Your task to perform on an android device: turn vacation reply on in the gmail app Image 0: 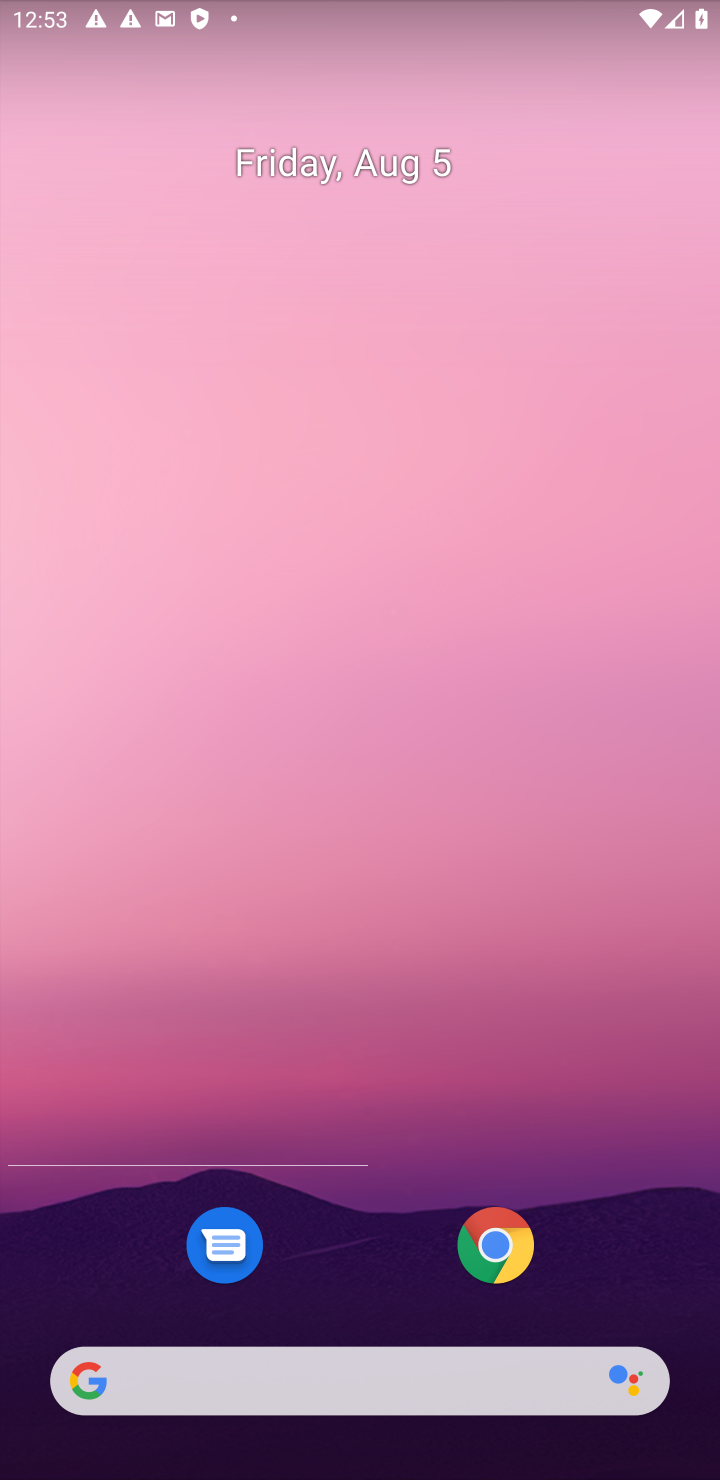
Step 0: press home button
Your task to perform on an android device: turn vacation reply on in the gmail app Image 1: 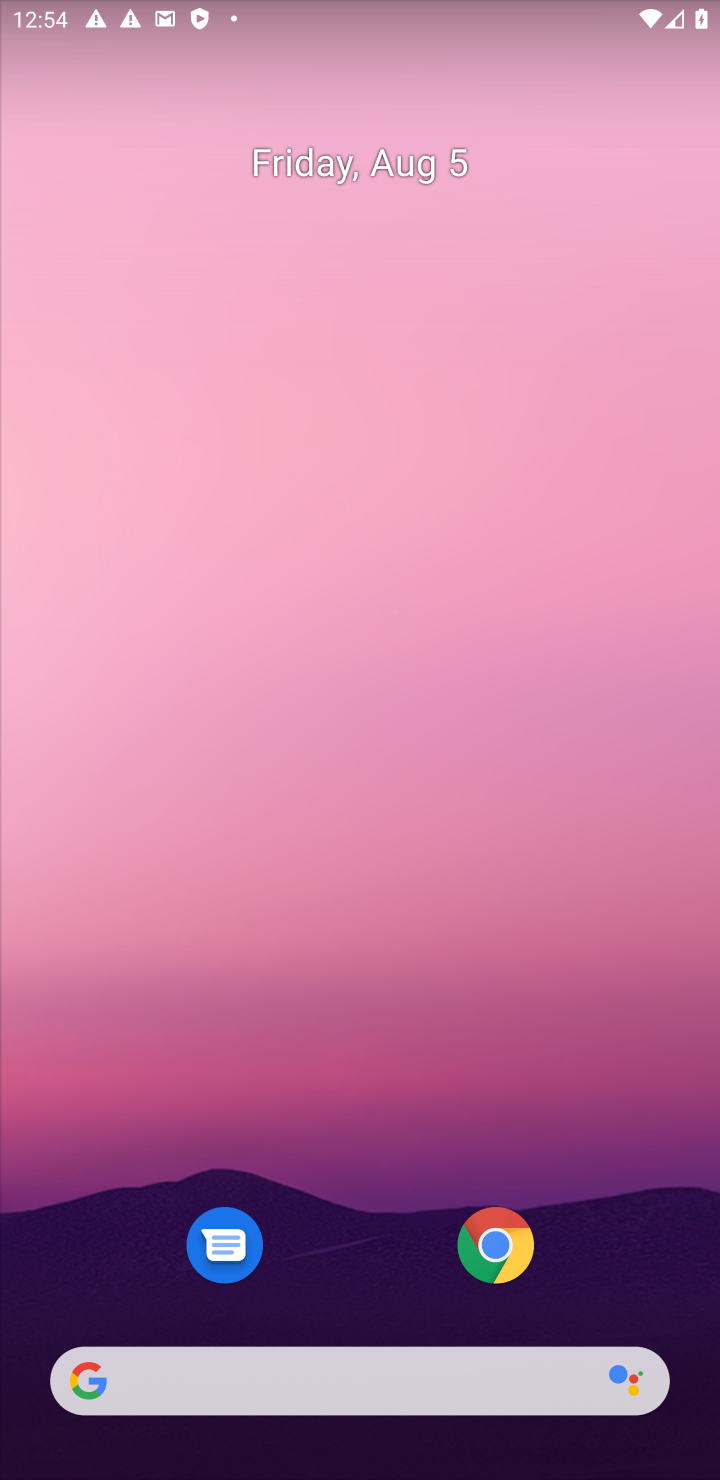
Step 1: drag from (374, 1063) to (453, 155)
Your task to perform on an android device: turn vacation reply on in the gmail app Image 2: 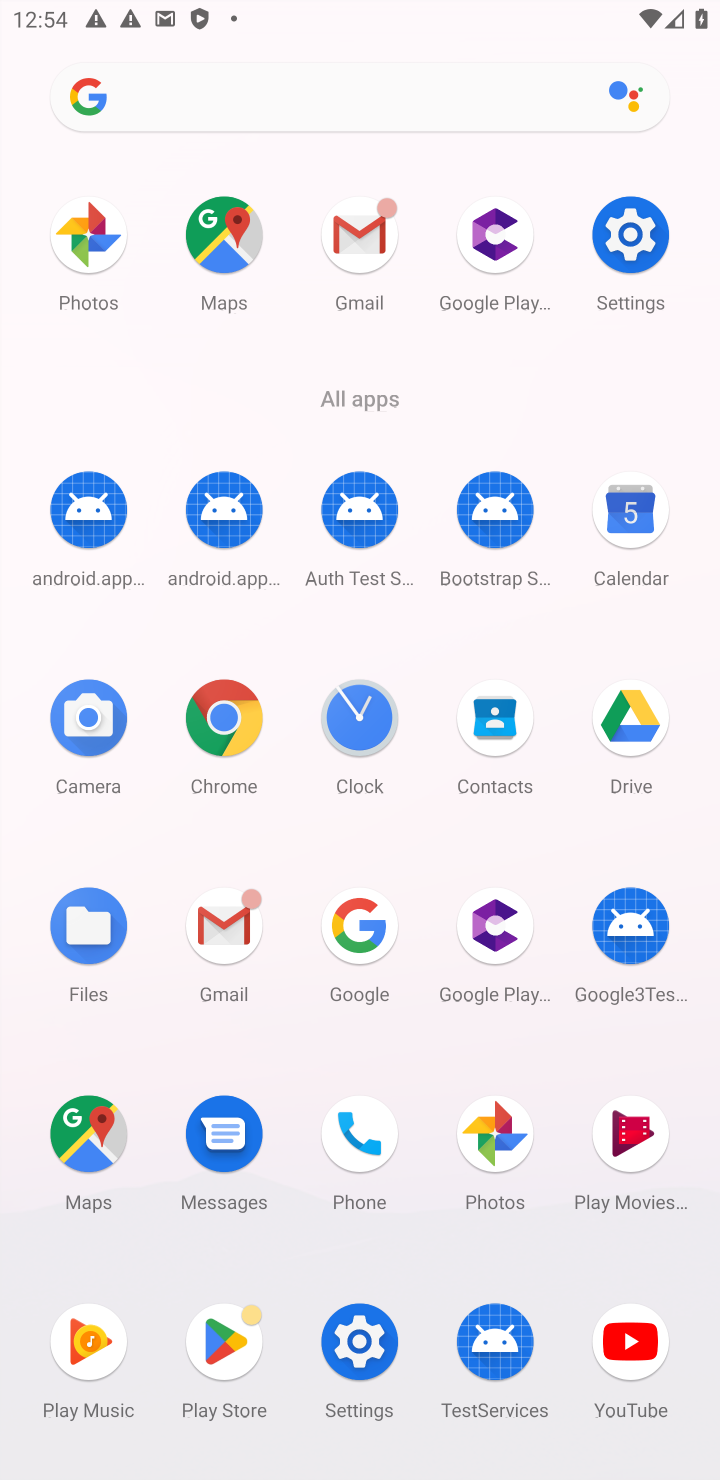
Step 2: click (361, 238)
Your task to perform on an android device: turn vacation reply on in the gmail app Image 3: 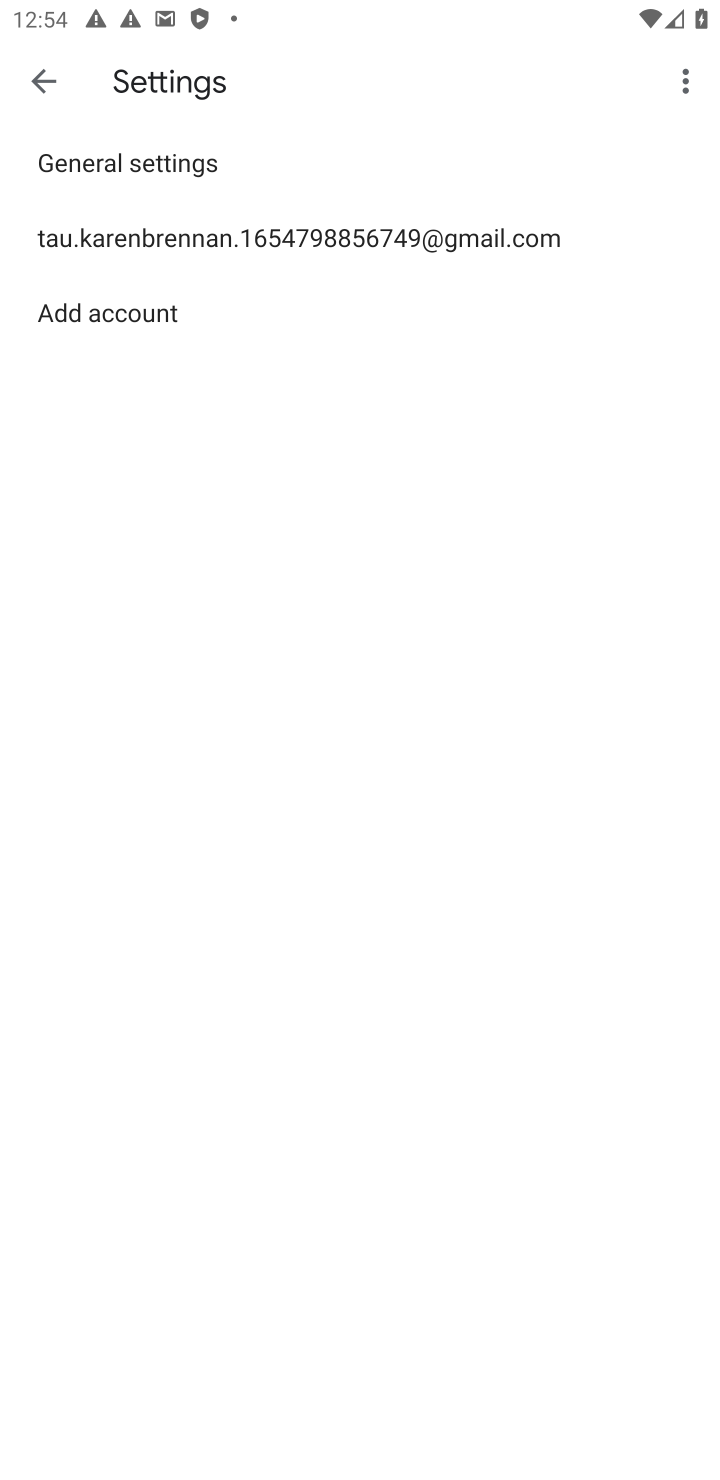
Step 3: click (274, 233)
Your task to perform on an android device: turn vacation reply on in the gmail app Image 4: 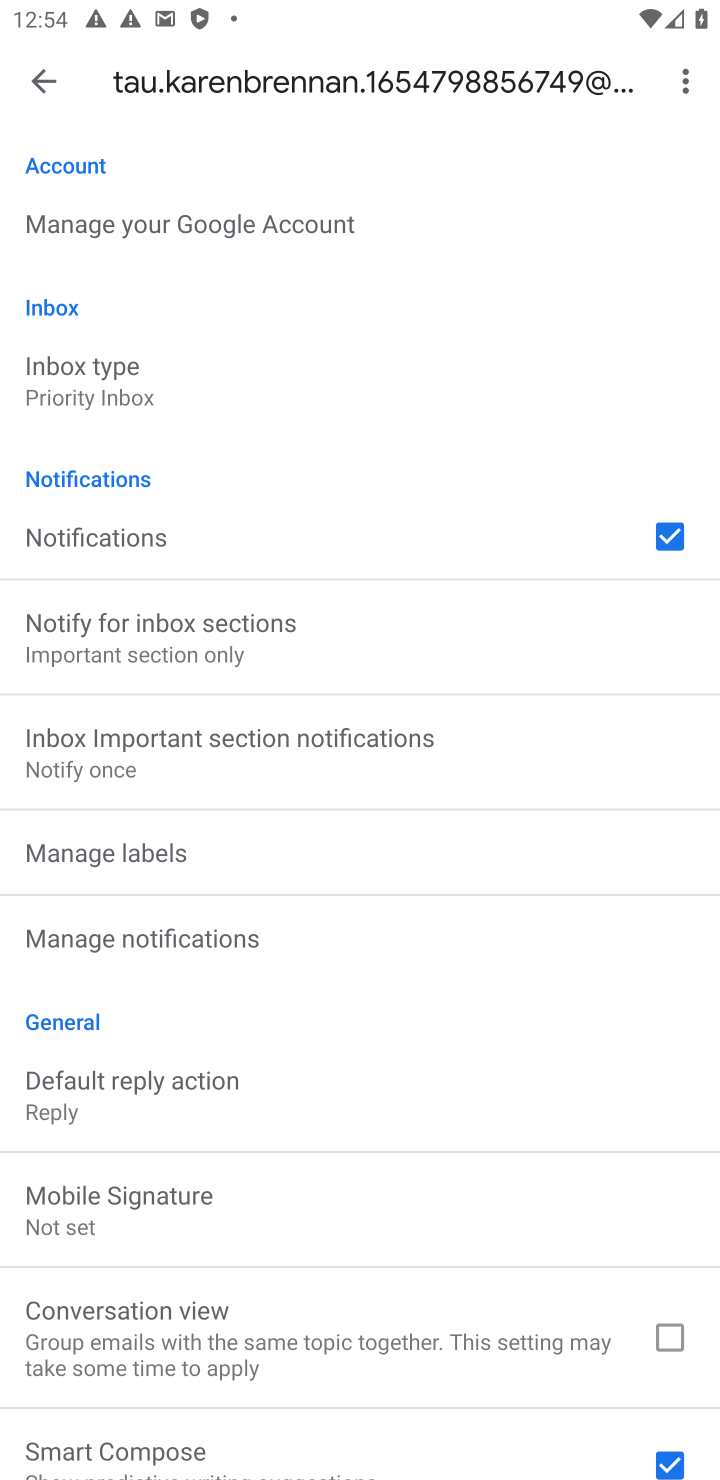
Step 4: drag from (424, 1305) to (432, 515)
Your task to perform on an android device: turn vacation reply on in the gmail app Image 5: 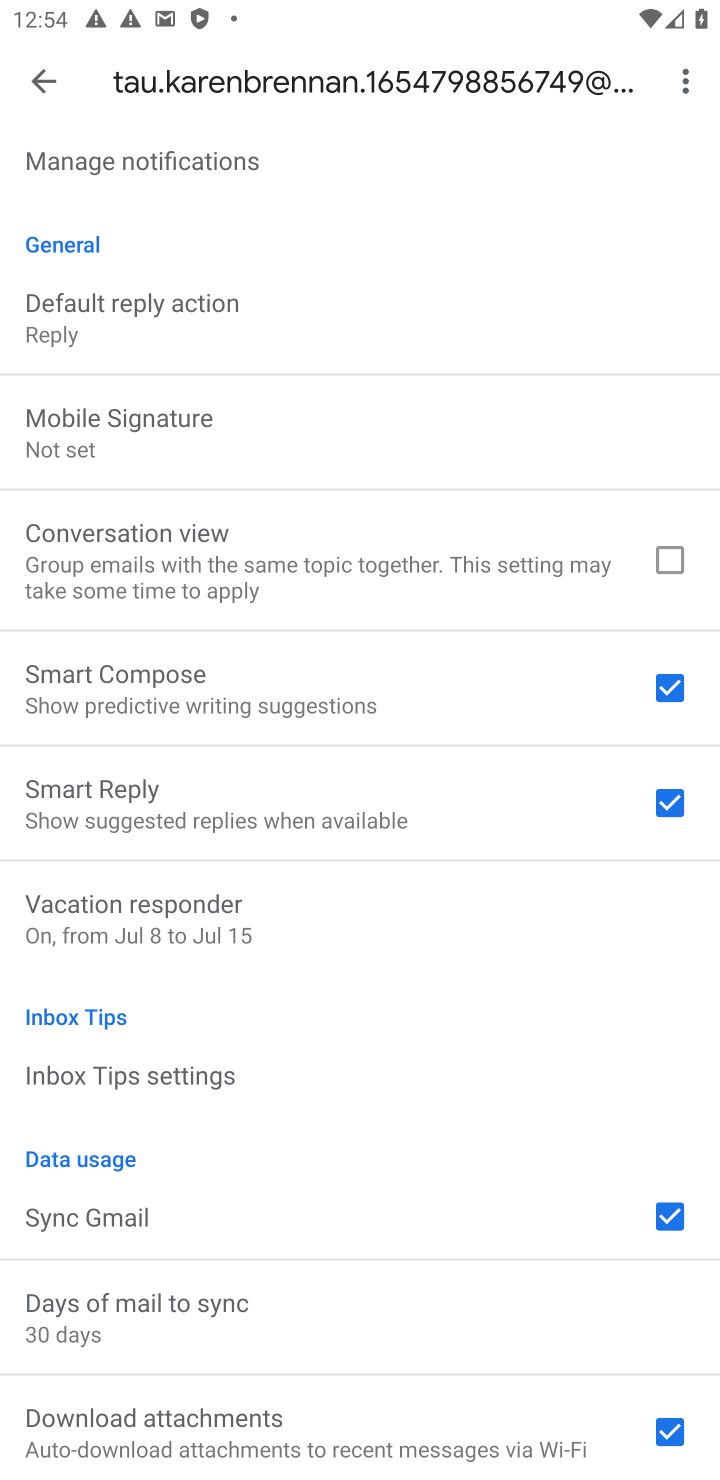
Step 5: click (151, 920)
Your task to perform on an android device: turn vacation reply on in the gmail app Image 6: 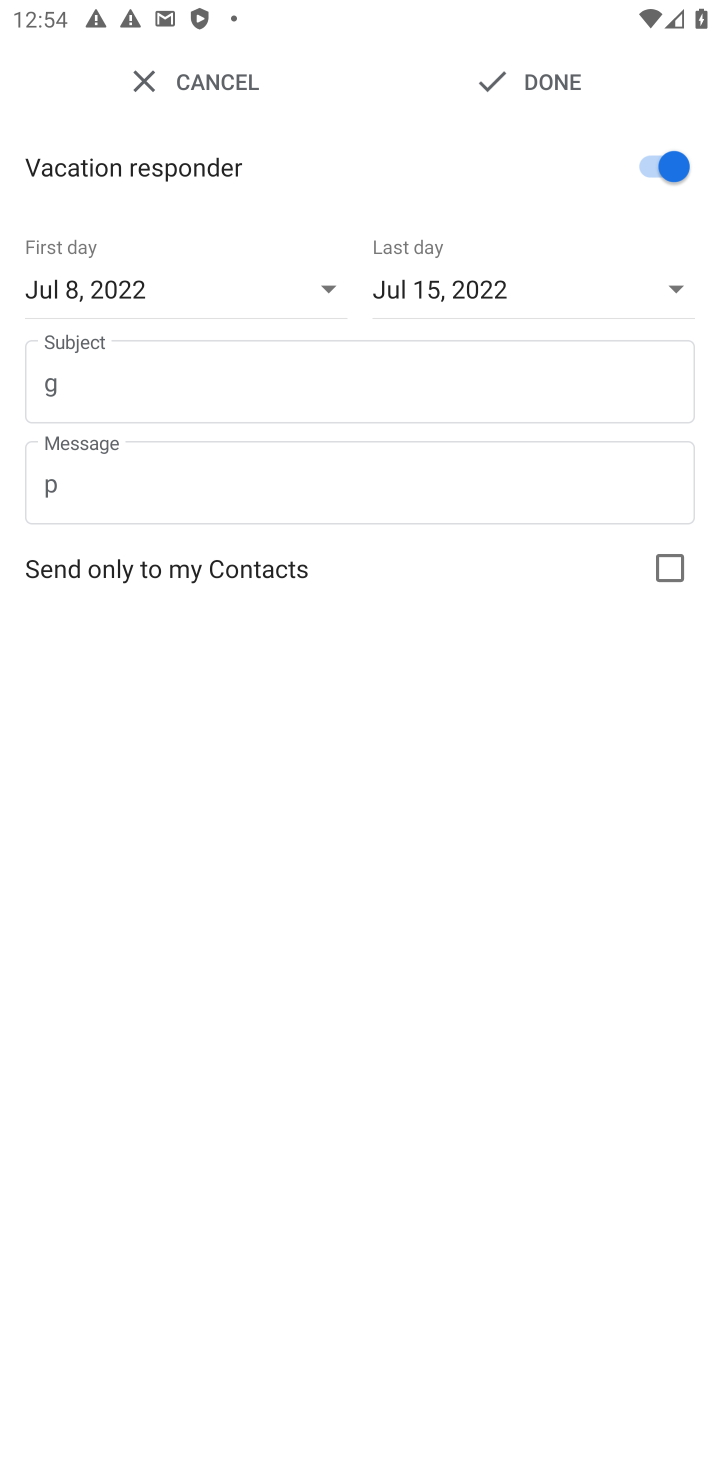
Step 6: task complete